Your task to perform on an android device: open device folders in google photos Image 0: 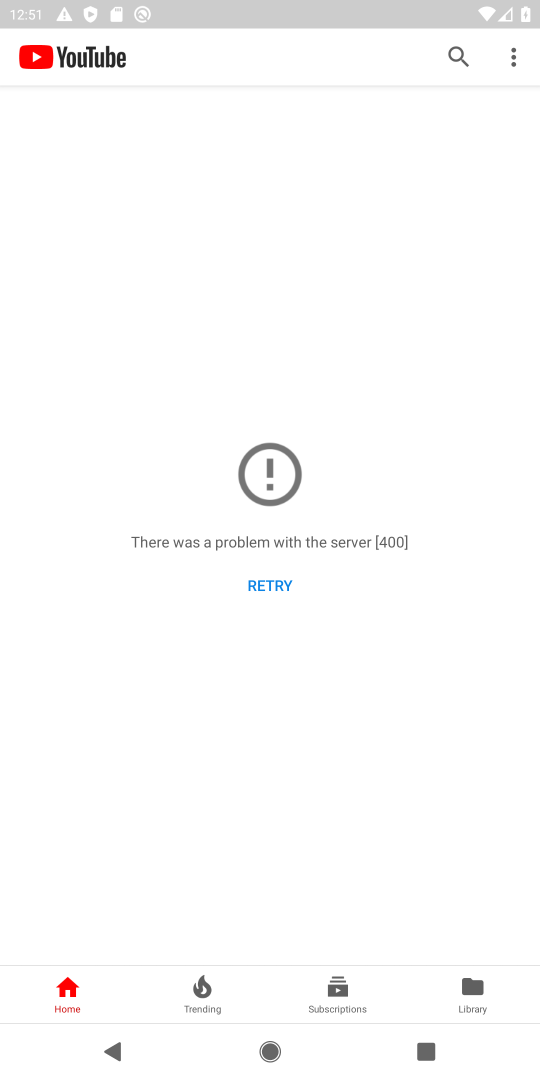
Step 0: press home button
Your task to perform on an android device: open device folders in google photos Image 1: 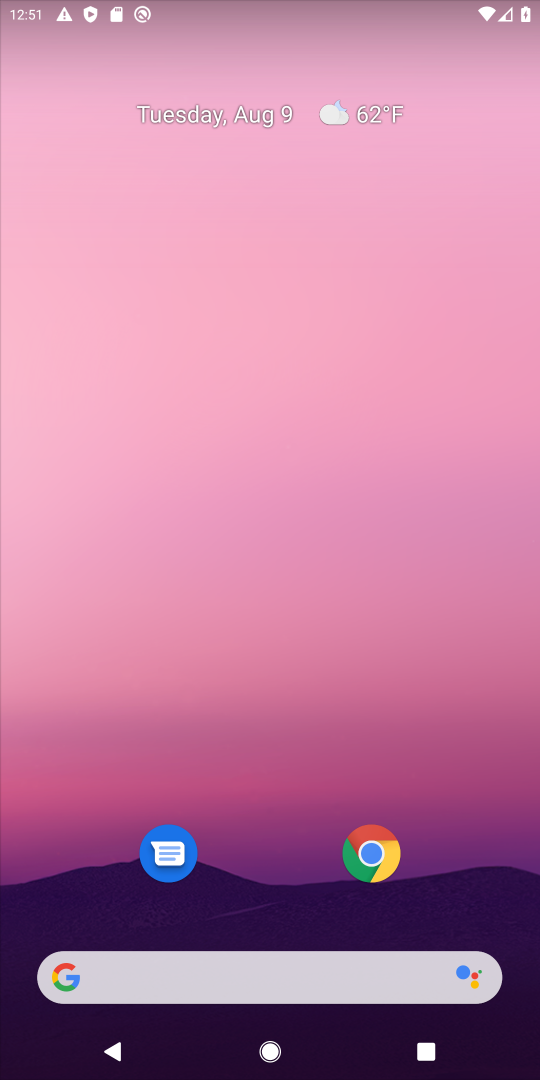
Step 1: drag from (285, 865) to (265, 148)
Your task to perform on an android device: open device folders in google photos Image 2: 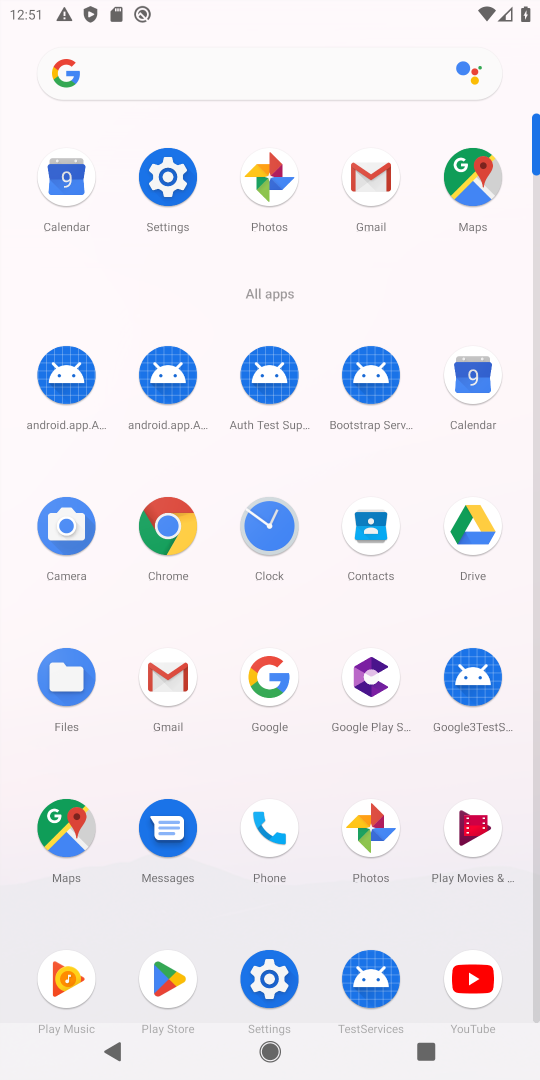
Step 2: click (271, 166)
Your task to perform on an android device: open device folders in google photos Image 3: 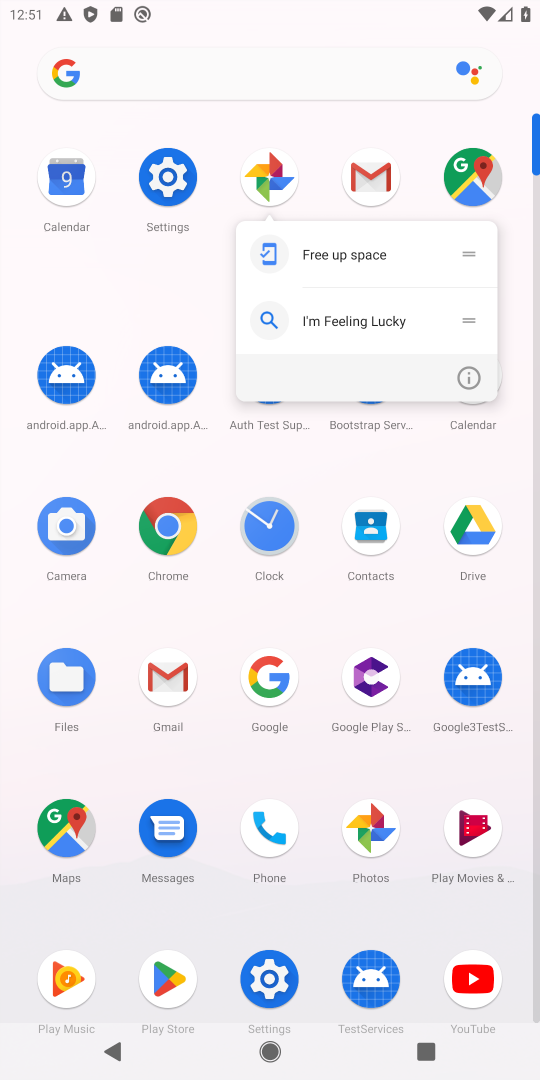
Step 3: click (260, 182)
Your task to perform on an android device: open device folders in google photos Image 4: 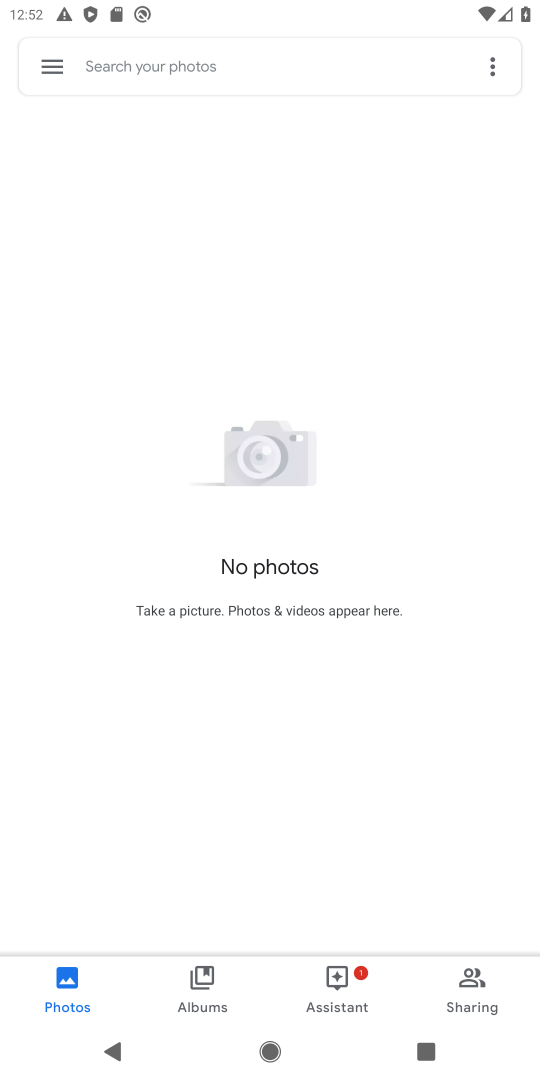
Step 4: click (136, 63)
Your task to perform on an android device: open device folders in google photos Image 5: 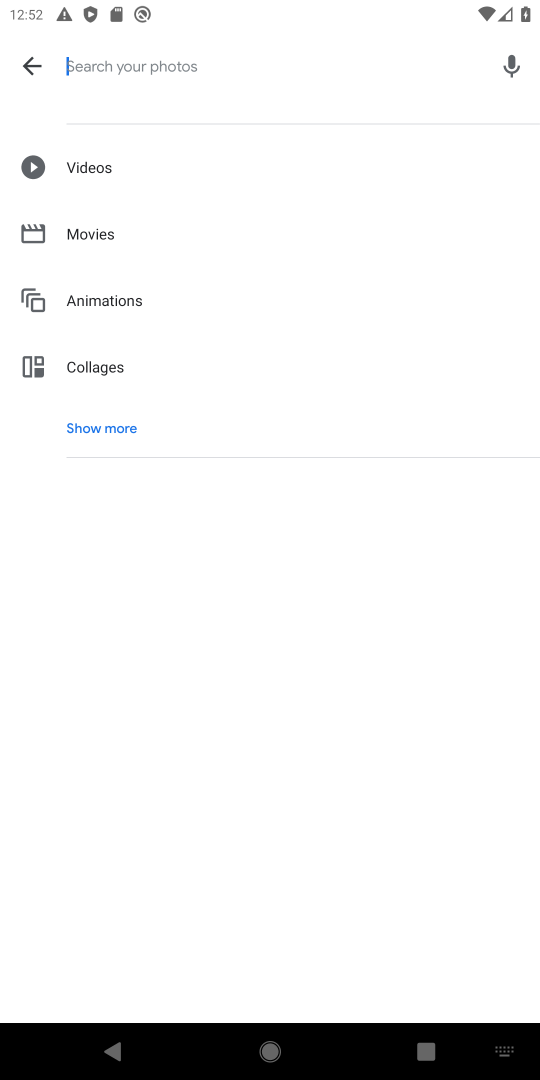
Step 5: click (149, 65)
Your task to perform on an android device: open device folders in google photos Image 6: 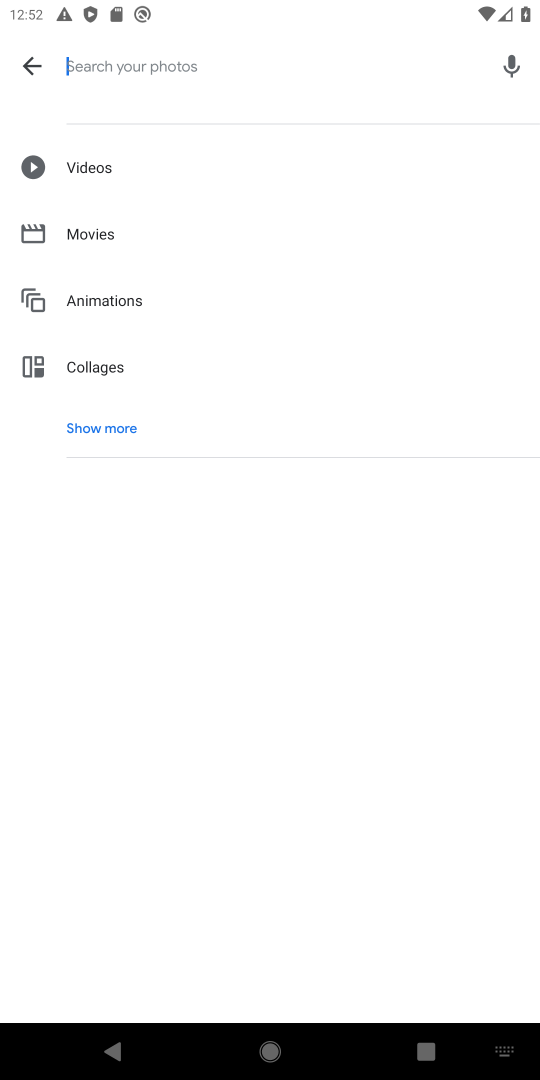
Step 6: type "device folders"
Your task to perform on an android device: open device folders in google photos Image 7: 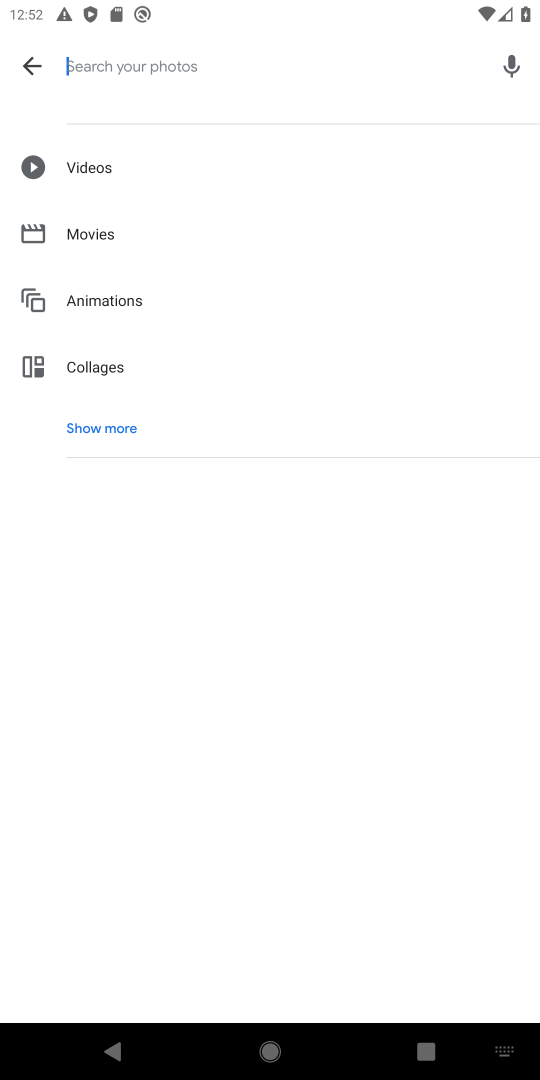
Step 7: click (149, 65)
Your task to perform on an android device: open device folders in google photos Image 8: 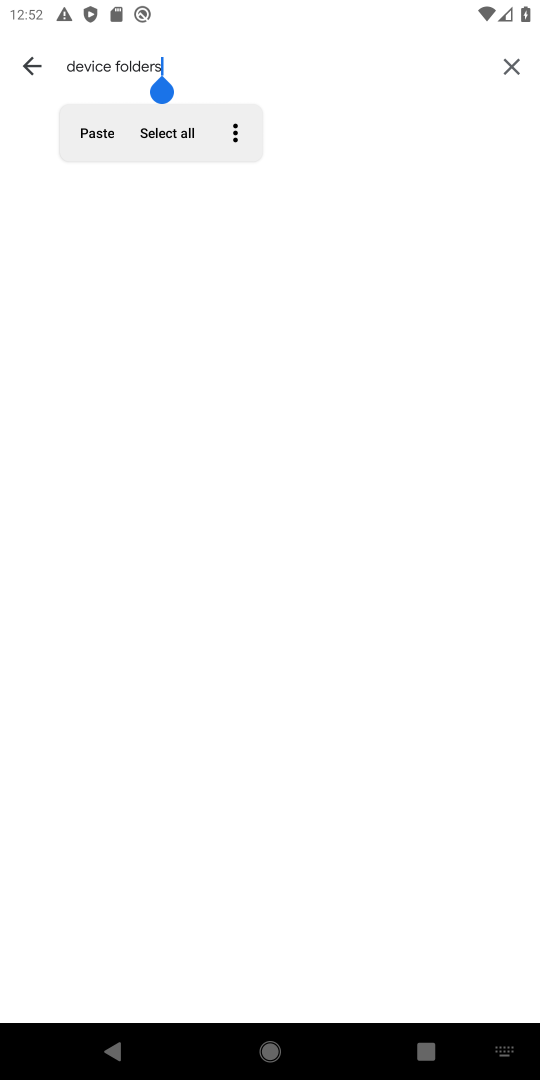
Step 8: press enter
Your task to perform on an android device: open device folders in google photos Image 9: 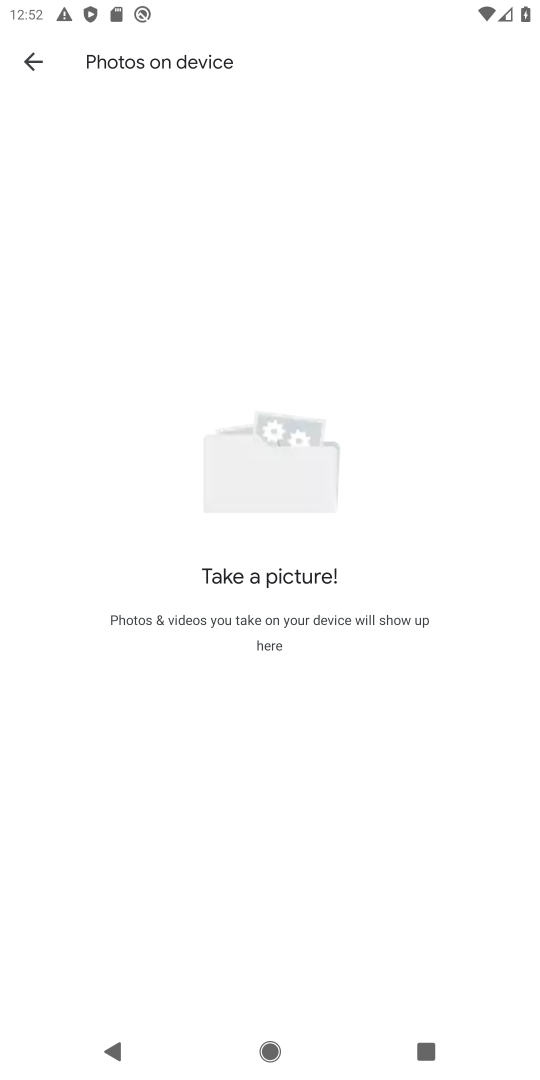
Step 9: task complete